Your task to perform on an android device: Open calendar and show me the fourth week of next month Image 0: 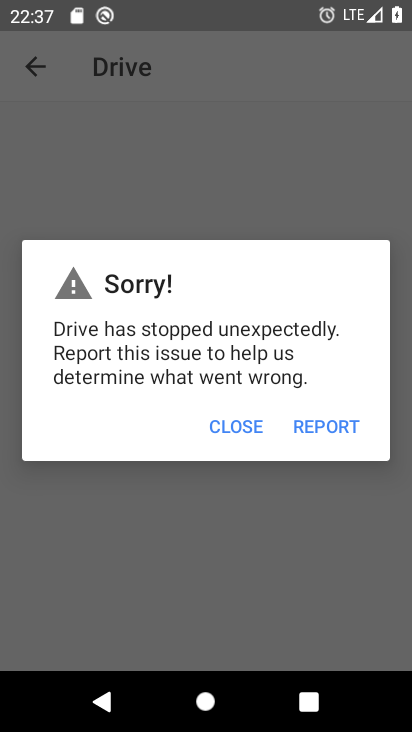
Step 0: press home button
Your task to perform on an android device: Open calendar and show me the fourth week of next month Image 1: 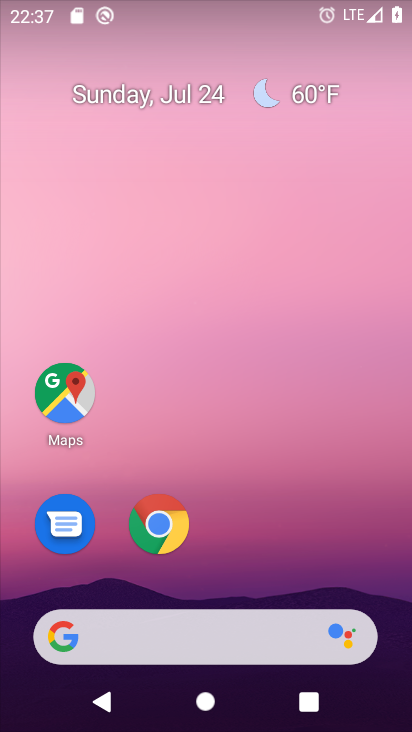
Step 1: drag from (248, 562) to (287, 1)
Your task to perform on an android device: Open calendar and show me the fourth week of next month Image 2: 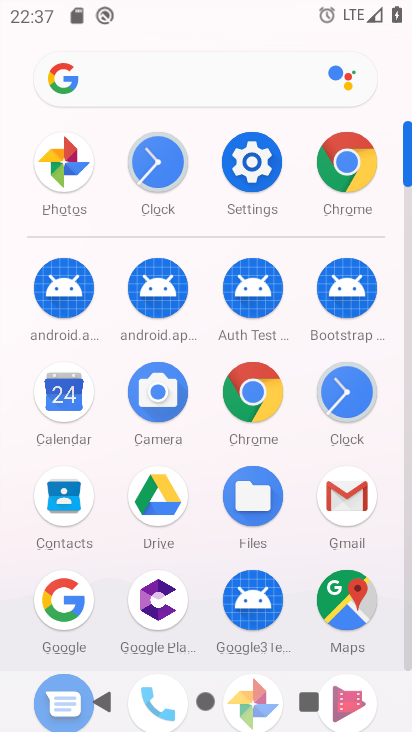
Step 2: click (58, 389)
Your task to perform on an android device: Open calendar and show me the fourth week of next month Image 3: 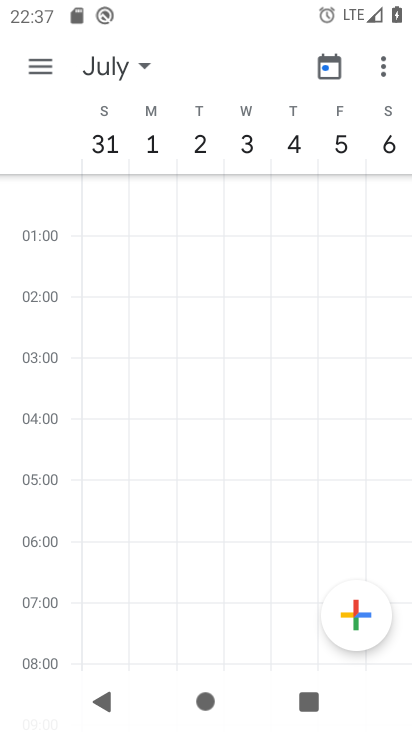
Step 3: drag from (386, 269) to (17, 318)
Your task to perform on an android device: Open calendar and show me the fourth week of next month Image 4: 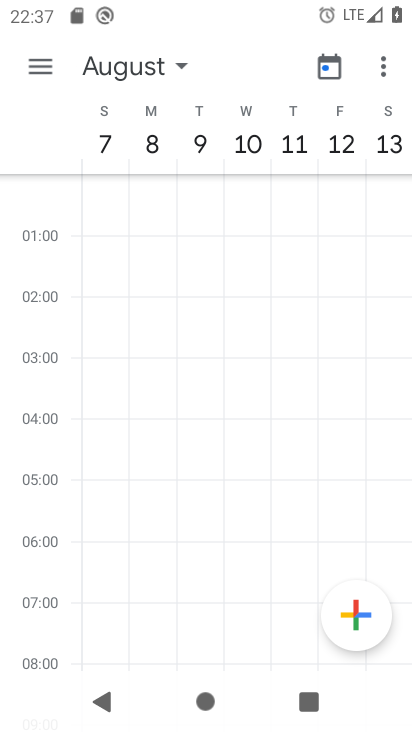
Step 4: drag from (379, 251) to (71, 286)
Your task to perform on an android device: Open calendar and show me the fourth week of next month Image 5: 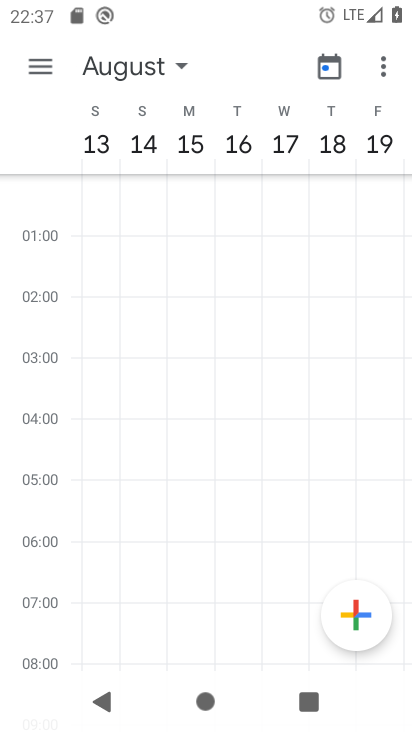
Step 5: click (27, 299)
Your task to perform on an android device: Open calendar and show me the fourth week of next month Image 6: 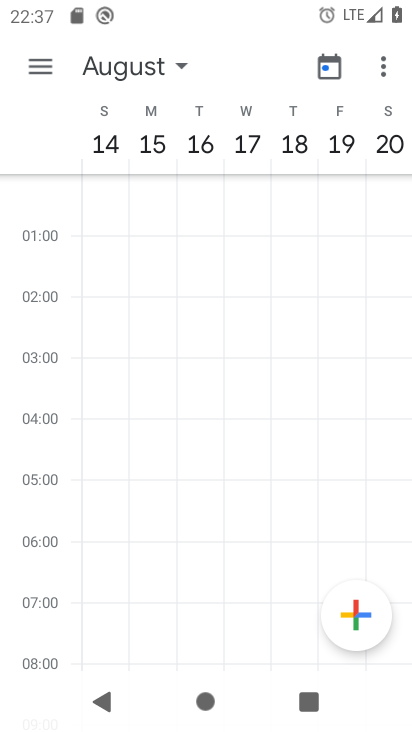
Step 6: task complete